Your task to perform on an android device: Open Google Image 0: 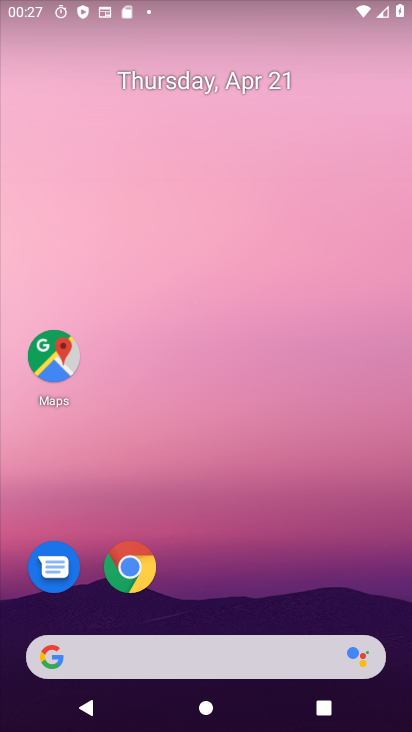
Step 0: drag from (259, 534) to (250, 135)
Your task to perform on an android device: Open Google Image 1: 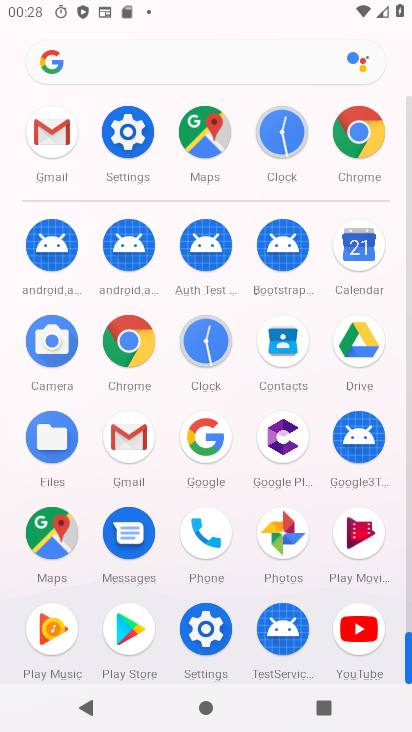
Step 1: click (196, 438)
Your task to perform on an android device: Open Google Image 2: 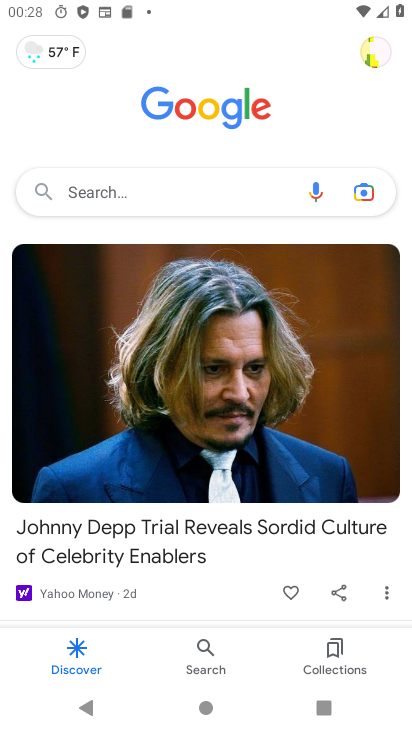
Step 2: task complete